Your task to perform on an android device: Google the capital of Peru Image 0: 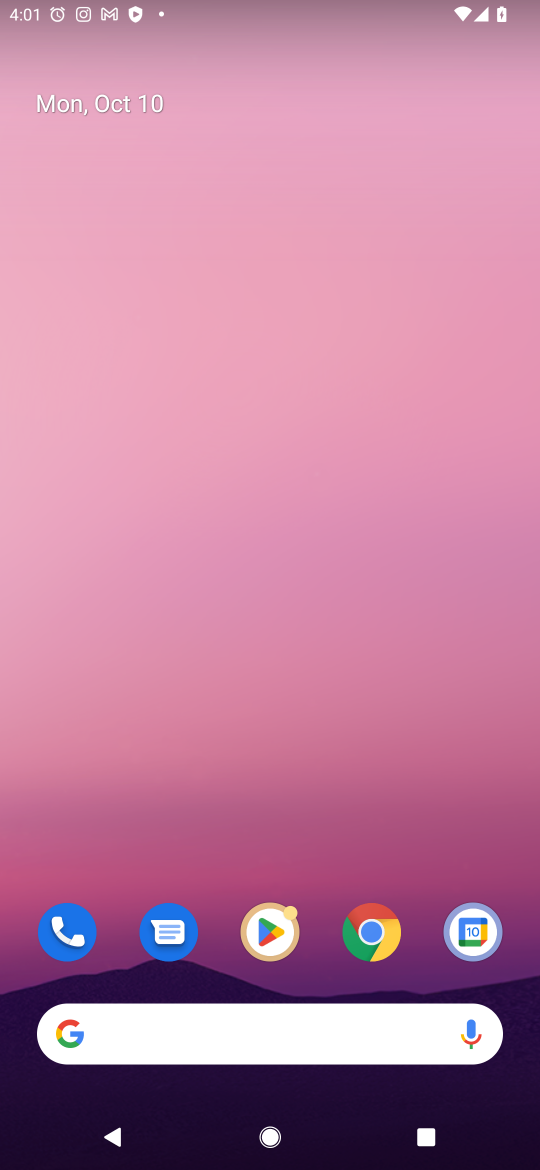
Step 0: press home button
Your task to perform on an android device: Google the capital of Peru Image 1: 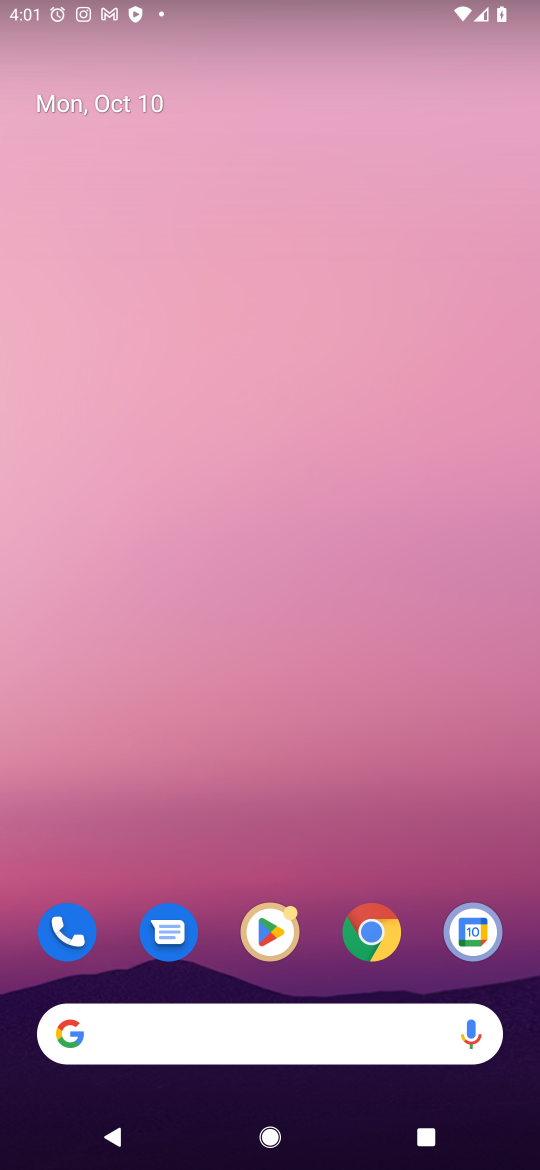
Step 1: click (342, 1043)
Your task to perform on an android device: Google the capital of Peru Image 2: 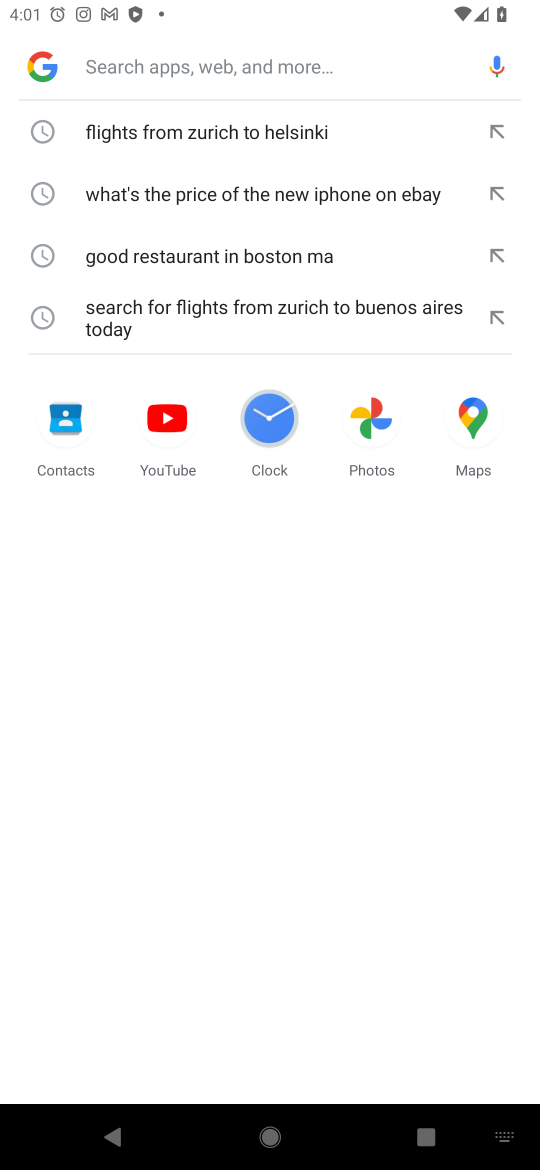
Step 2: type "capital of Peru"
Your task to perform on an android device: Google the capital of Peru Image 3: 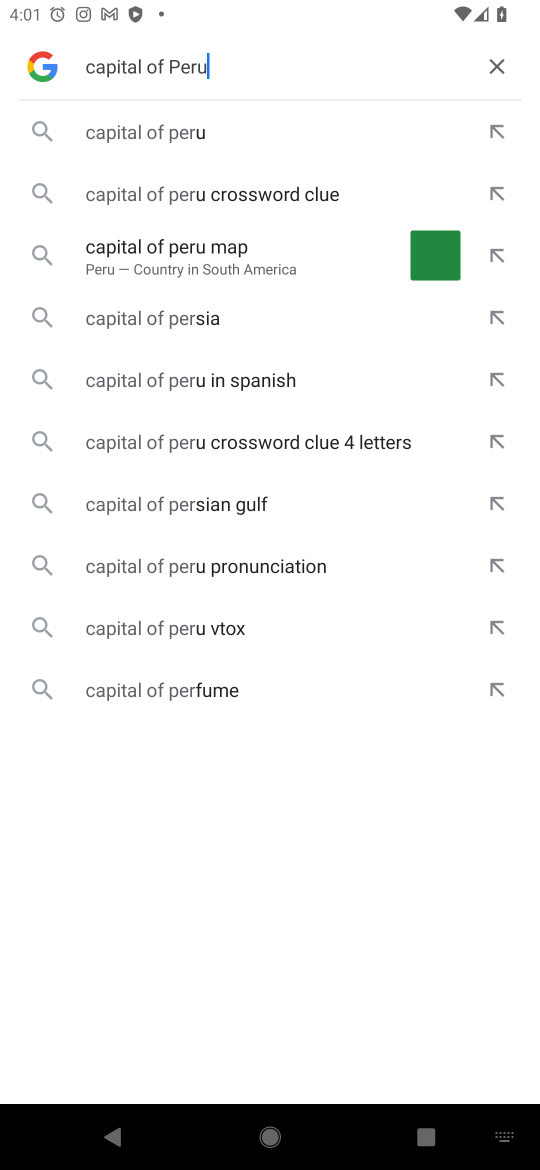
Step 3: press enter
Your task to perform on an android device: Google the capital of Peru Image 4: 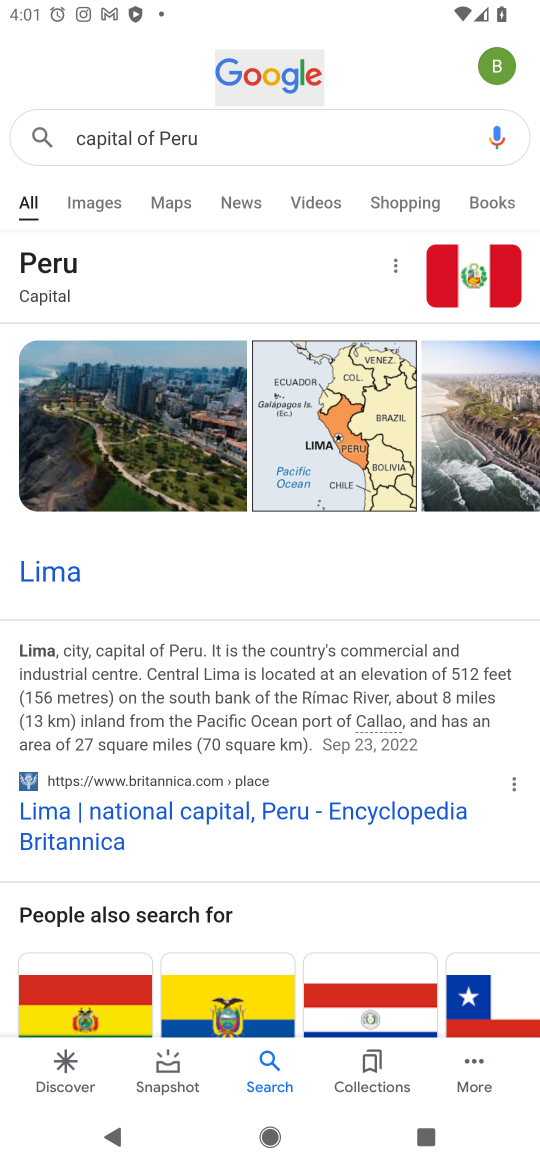
Step 4: task complete